Your task to perform on an android device: Go to eBay Image 0: 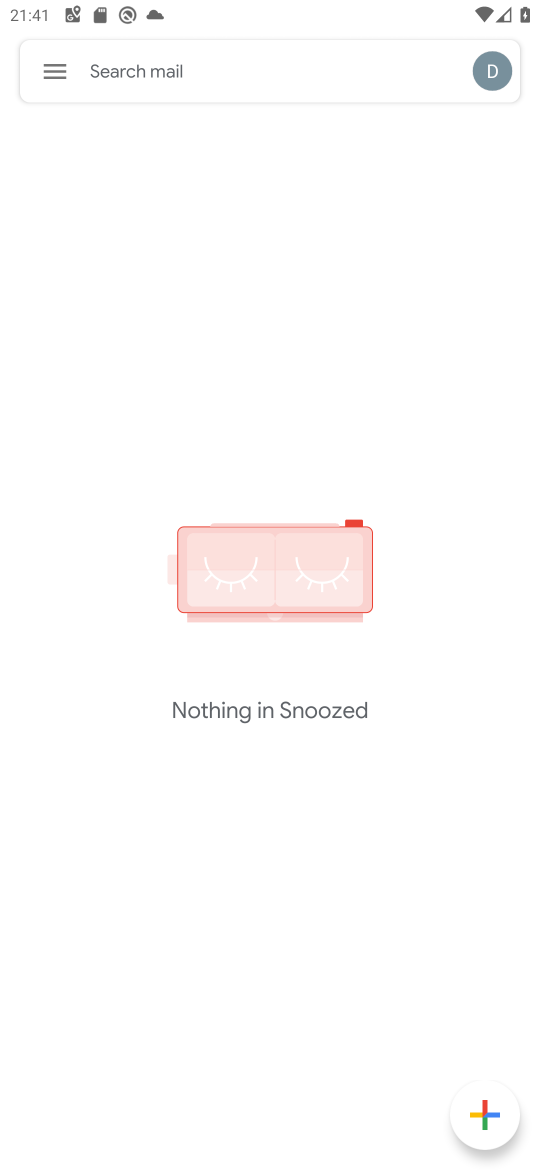
Step 0: press home button
Your task to perform on an android device: Go to eBay Image 1: 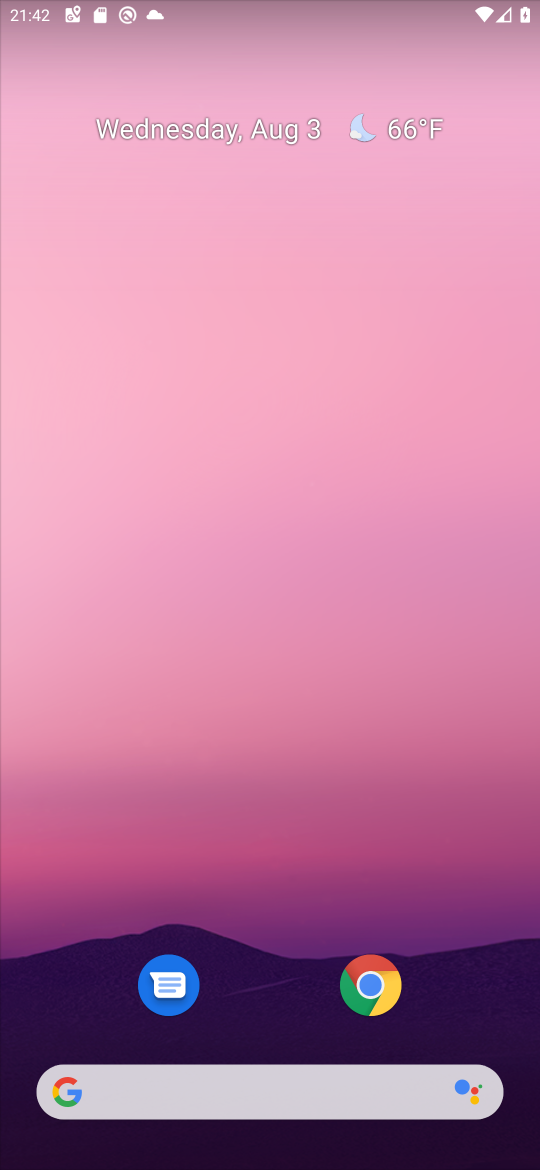
Step 1: click (347, 993)
Your task to perform on an android device: Go to eBay Image 2: 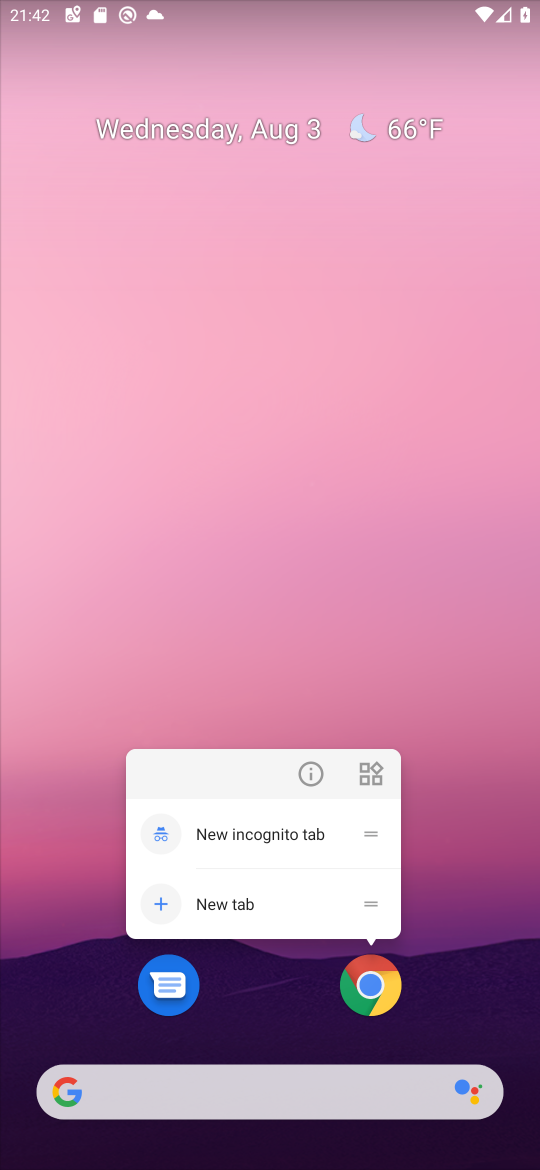
Step 2: click (347, 993)
Your task to perform on an android device: Go to eBay Image 3: 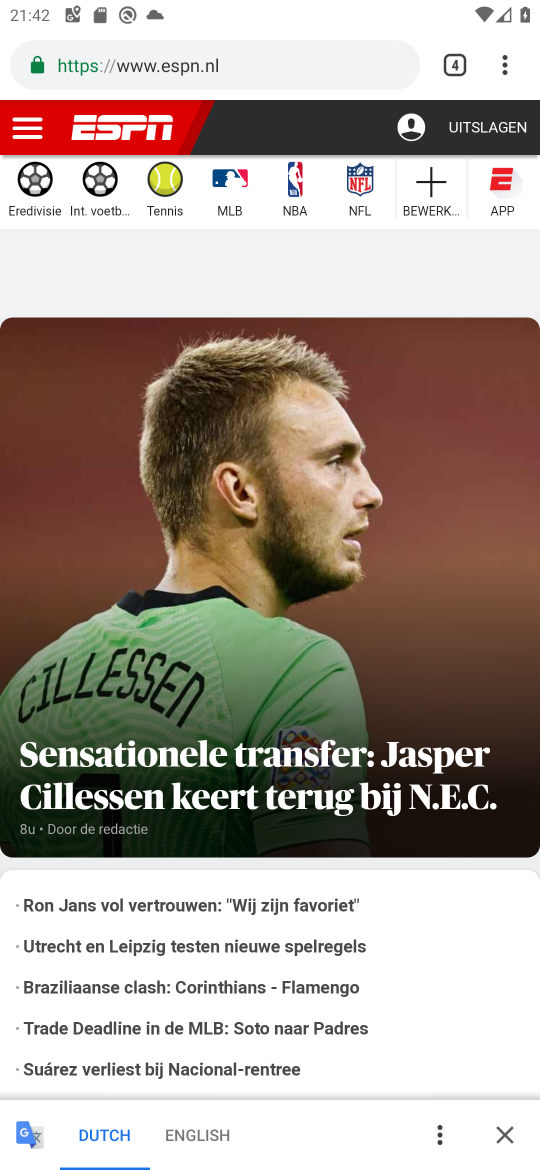
Step 3: click (446, 63)
Your task to perform on an android device: Go to eBay Image 4: 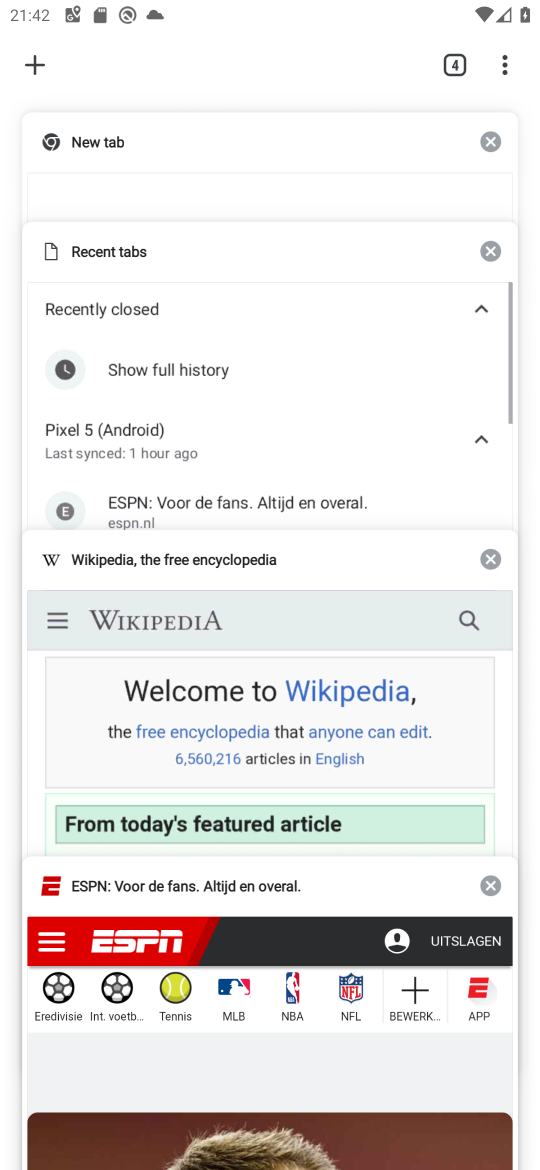
Step 4: click (36, 53)
Your task to perform on an android device: Go to eBay Image 5: 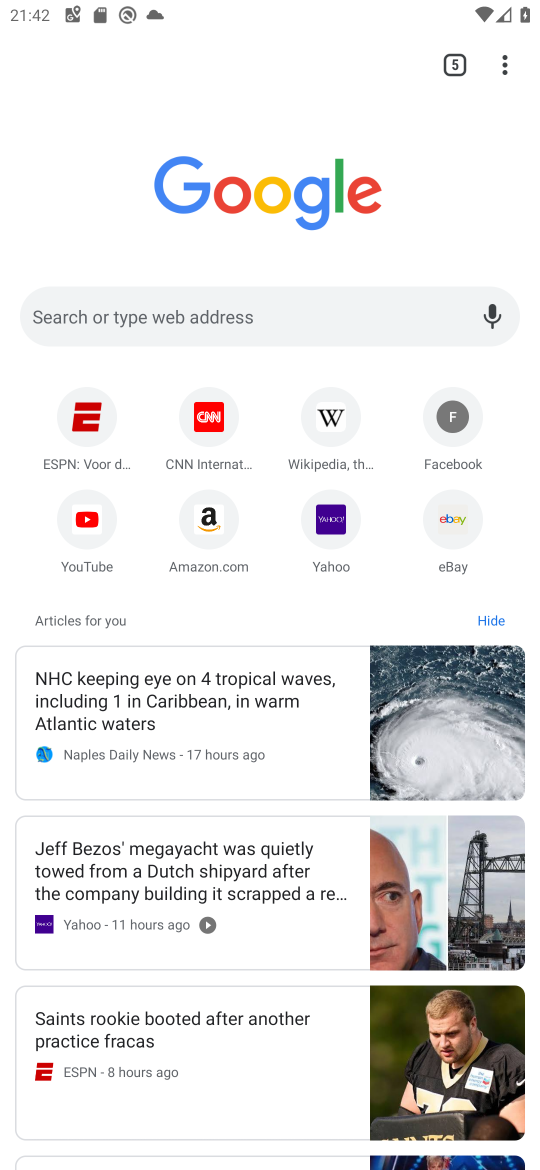
Step 5: click (194, 302)
Your task to perform on an android device: Go to eBay Image 6: 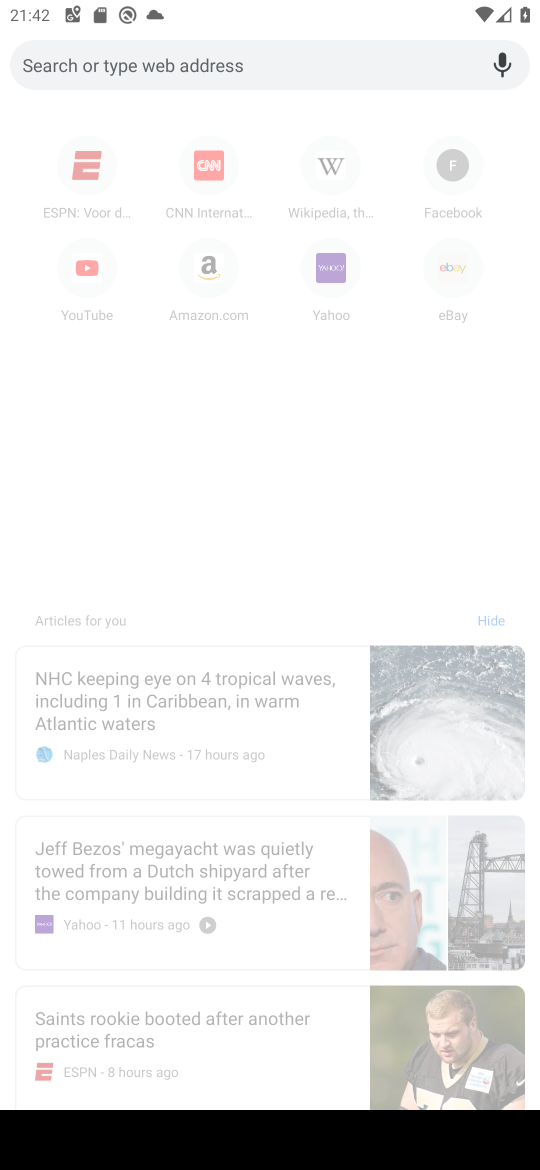
Step 6: type "eBay"
Your task to perform on an android device: Go to eBay Image 7: 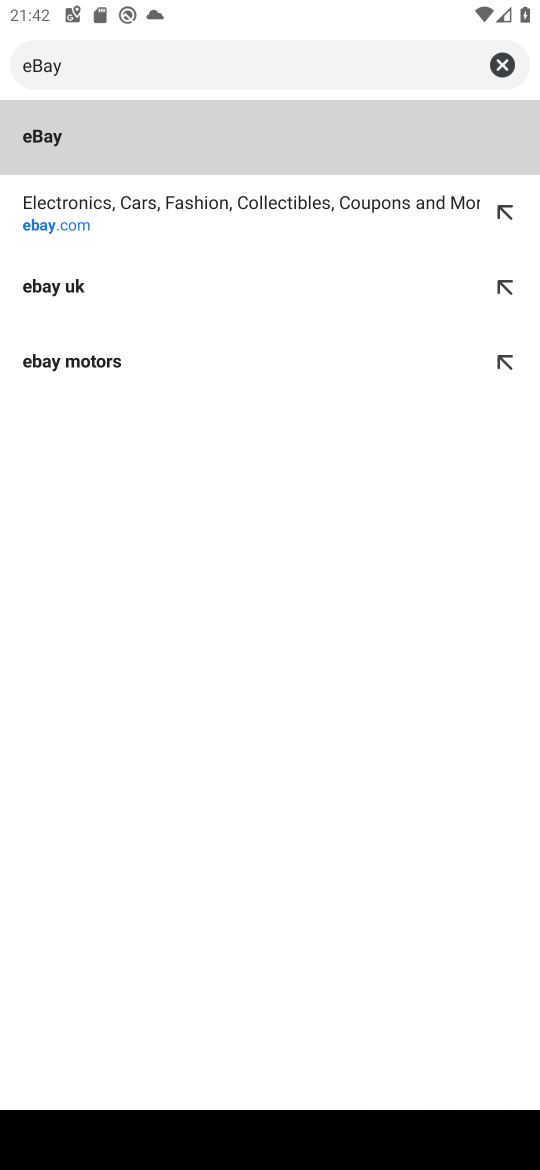
Step 7: click (180, 136)
Your task to perform on an android device: Go to eBay Image 8: 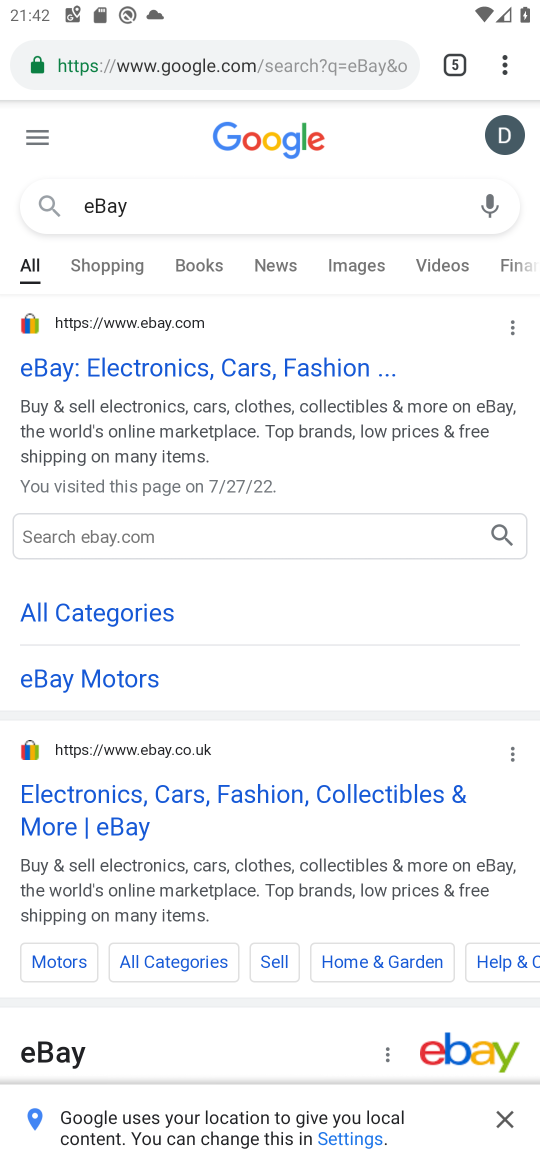
Step 8: click (153, 379)
Your task to perform on an android device: Go to eBay Image 9: 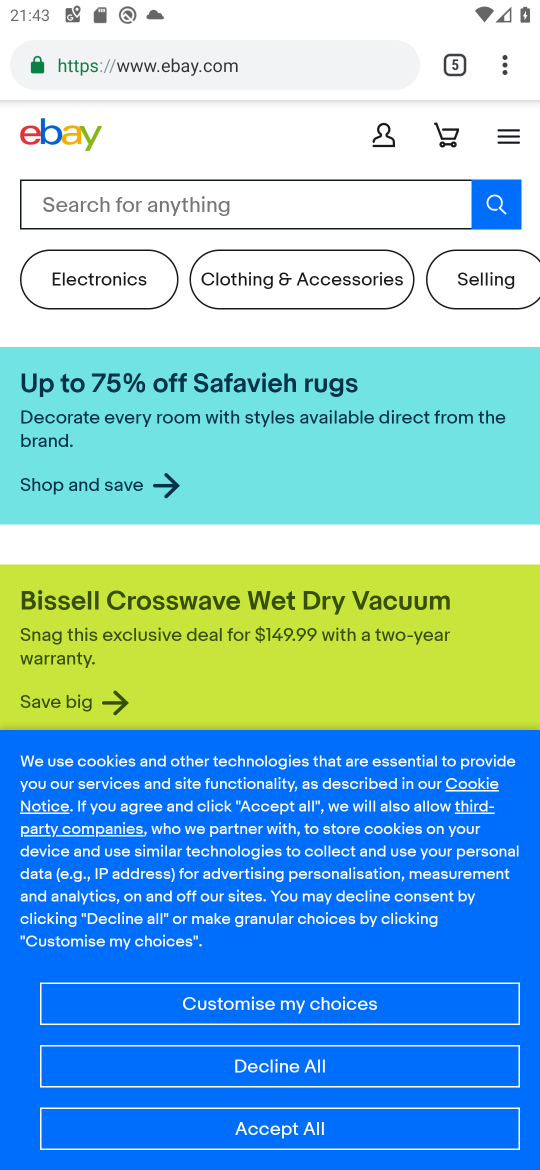
Step 9: task complete